Your task to perform on an android device: Show me popular videos on Youtube Image 0: 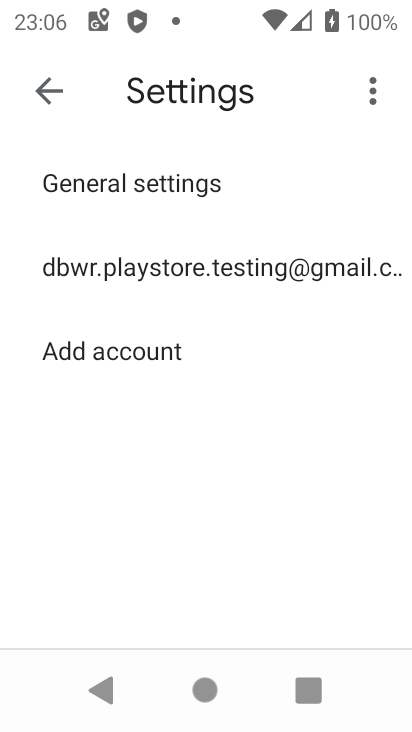
Step 0: press home button
Your task to perform on an android device: Show me popular videos on Youtube Image 1: 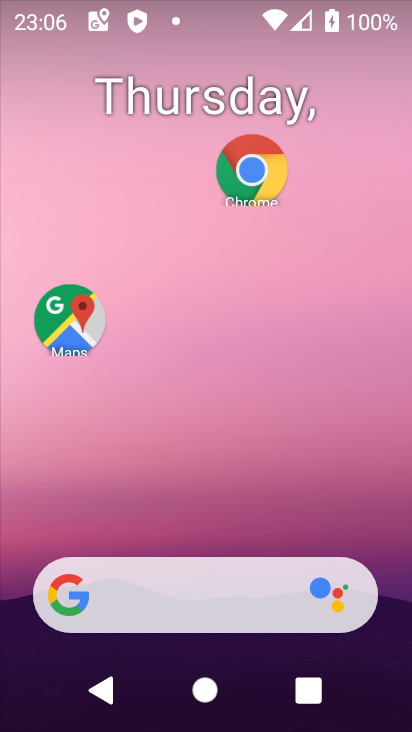
Step 1: drag from (164, 552) to (160, 206)
Your task to perform on an android device: Show me popular videos on Youtube Image 2: 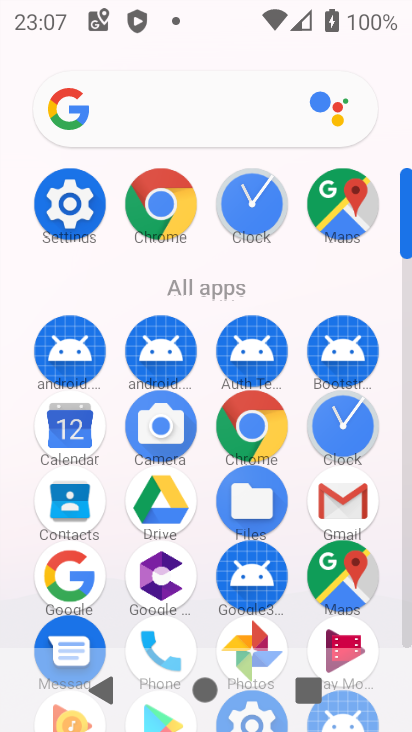
Step 2: drag from (211, 565) to (211, 259)
Your task to perform on an android device: Show me popular videos on Youtube Image 3: 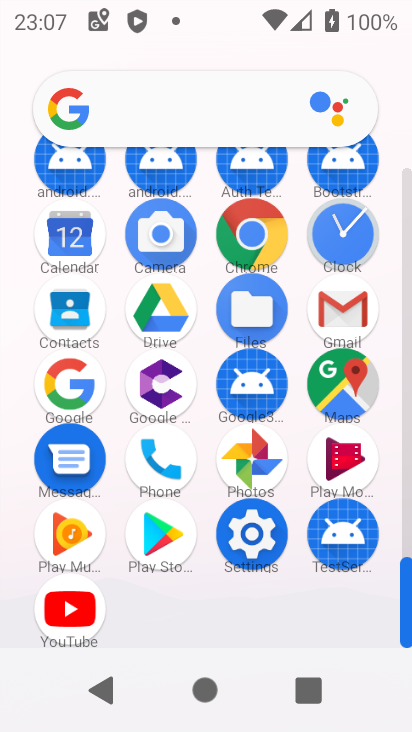
Step 3: click (57, 608)
Your task to perform on an android device: Show me popular videos on Youtube Image 4: 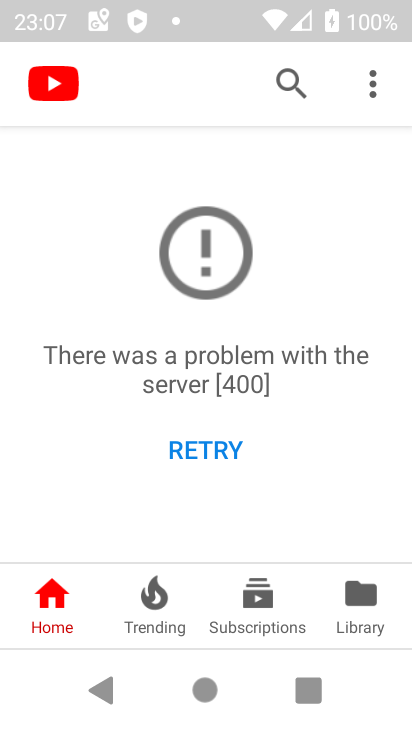
Step 4: click (296, 78)
Your task to perform on an android device: Show me popular videos on Youtube Image 5: 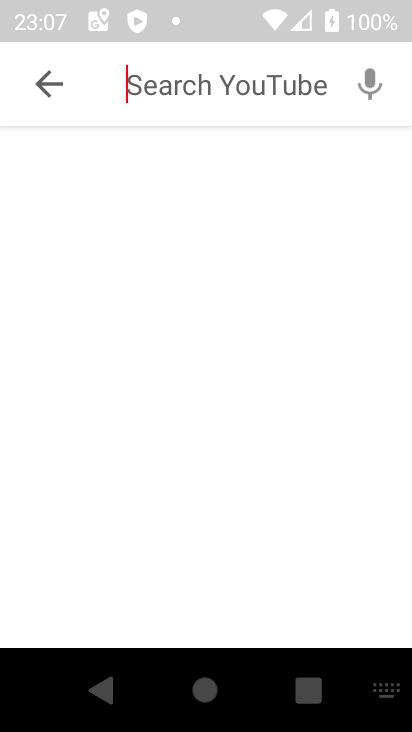
Step 5: click (229, 81)
Your task to perform on an android device: Show me popular videos on Youtube Image 6: 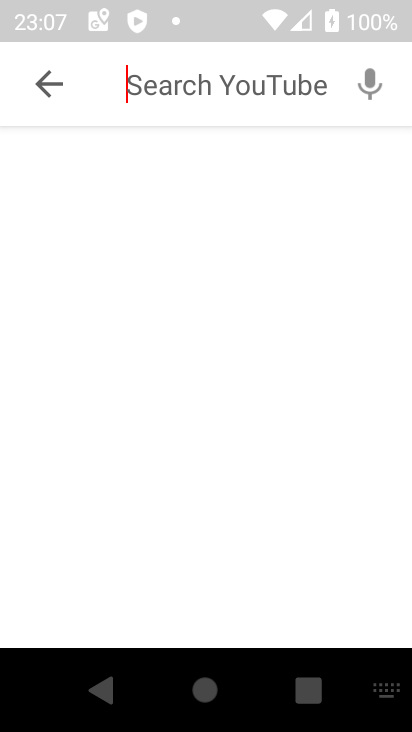
Step 6: type "popular video"
Your task to perform on an android device: Show me popular videos on Youtube Image 7: 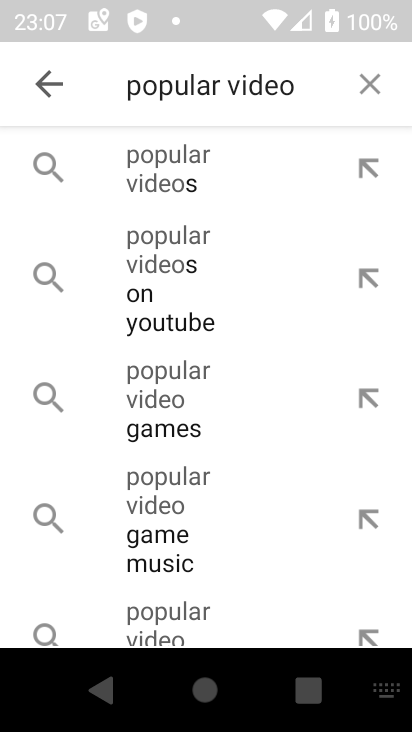
Step 7: click (180, 291)
Your task to perform on an android device: Show me popular videos on Youtube Image 8: 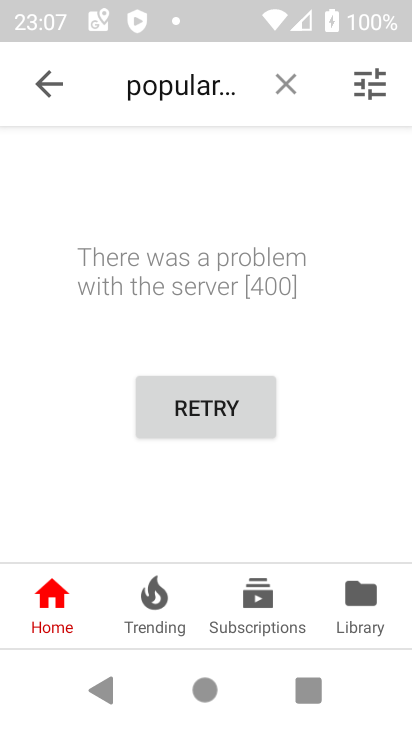
Step 8: click (217, 421)
Your task to perform on an android device: Show me popular videos on Youtube Image 9: 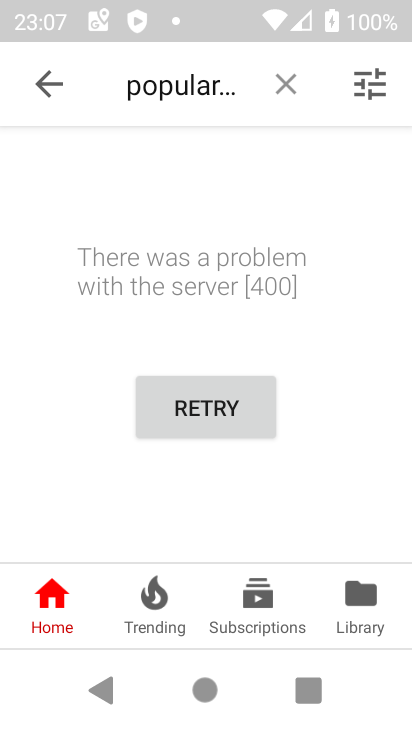
Step 9: click (219, 406)
Your task to perform on an android device: Show me popular videos on Youtube Image 10: 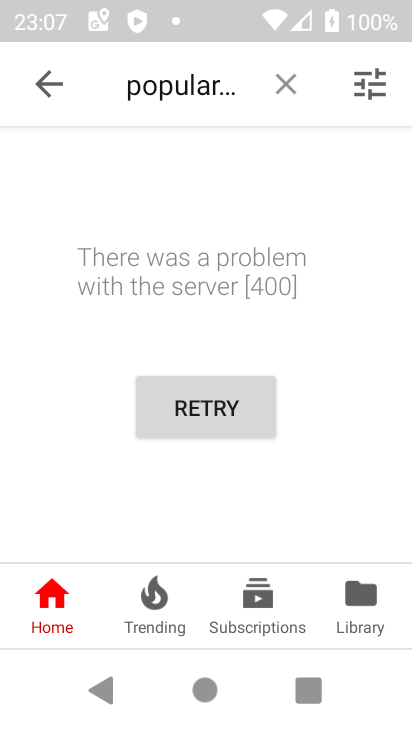
Step 10: click (247, 91)
Your task to perform on an android device: Show me popular videos on Youtube Image 11: 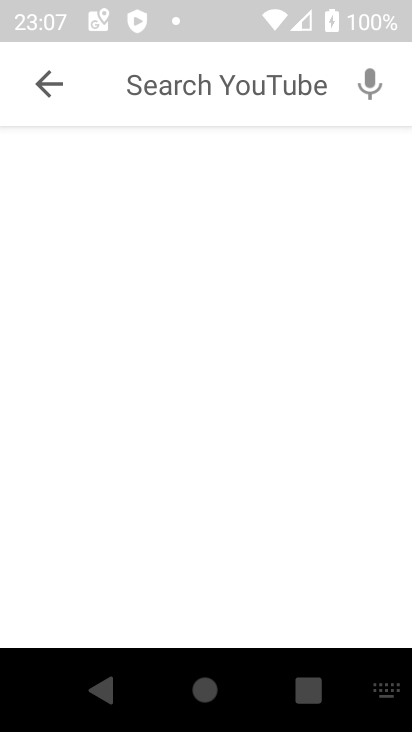
Step 11: task complete